Your task to perform on an android device: remove spam from my inbox in the gmail app Image 0: 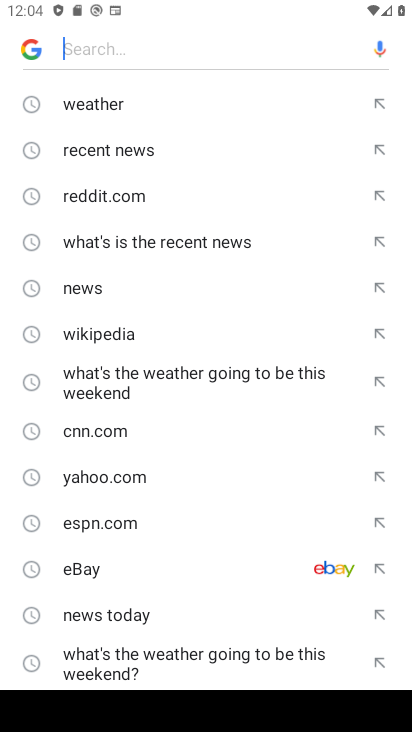
Step 0: press back button
Your task to perform on an android device: remove spam from my inbox in the gmail app Image 1: 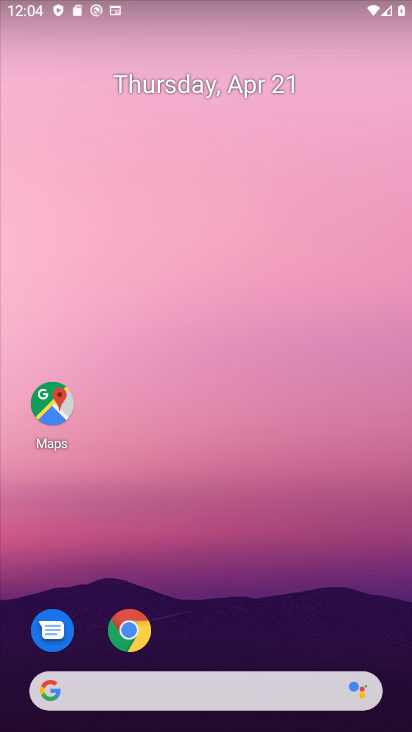
Step 1: drag from (234, 591) to (137, 16)
Your task to perform on an android device: remove spam from my inbox in the gmail app Image 2: 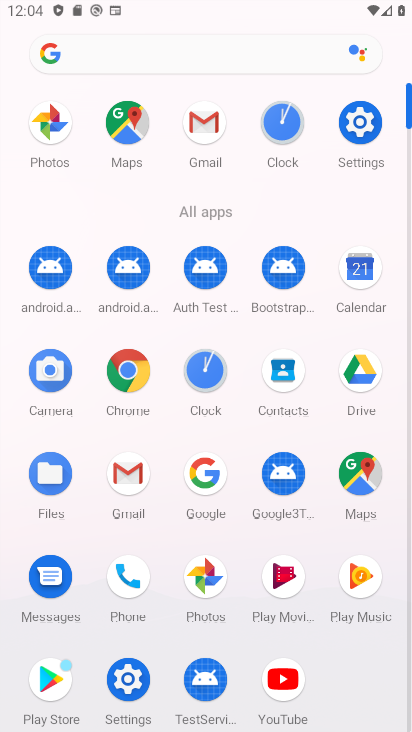
Step 2: click (126, 483)
Your task to perform on an android device: remove spam from my inbox in the gmail app Image 3: 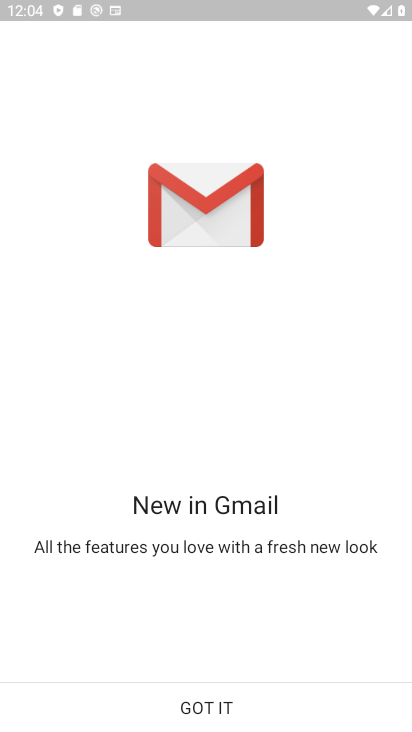
Step 3: click (247, 726)
Your task to perform on an android device: remove spam from my inbox in the gmail app Image 4: 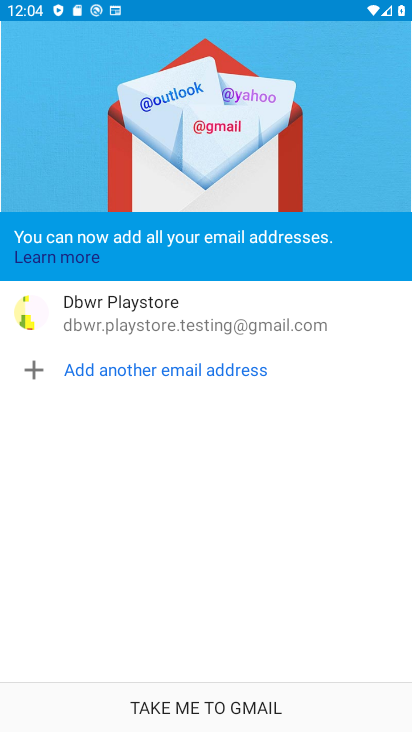
Step 4: click (218, 706)
Your task to perform on an android device: remove spam from my inbox in the gmail app Image 5: 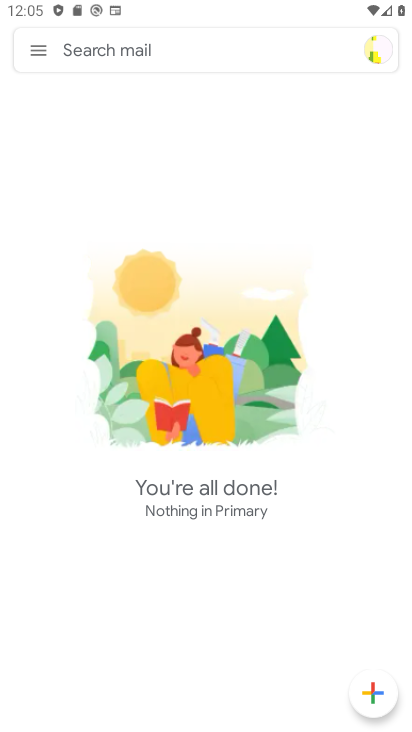
Step 5: click (30, 42)
Your task to perform on an android device: remove spam from my inbox in the gmail app Image 6: 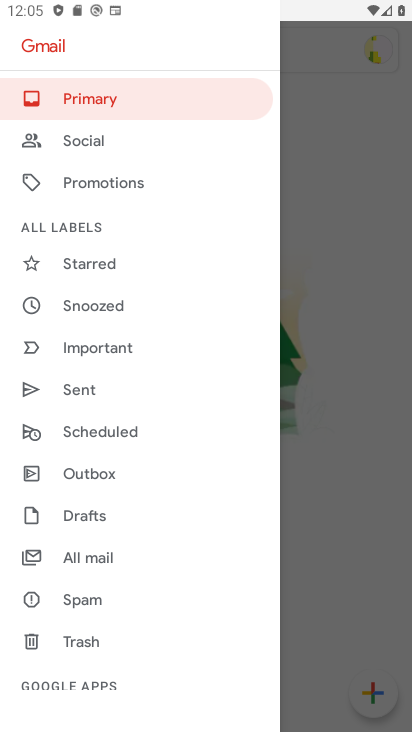
Step 6: click (95, 600)
Your task to perform on an android device: remove spam from my inbox in the gmail app Image 7: 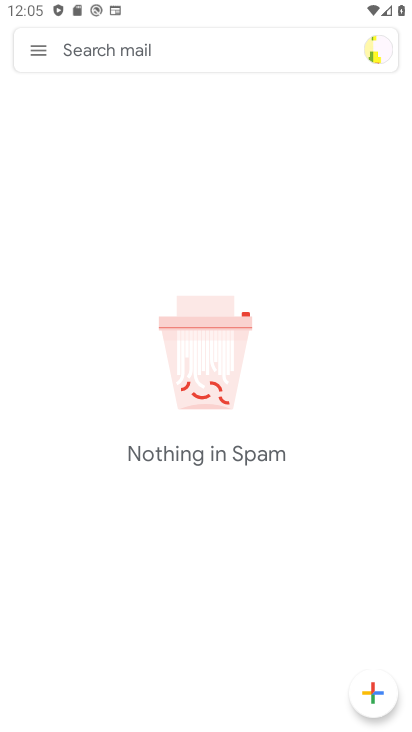
Step 7: task complete